Your task to perform on an android device: Open the stopwatch Image 0: 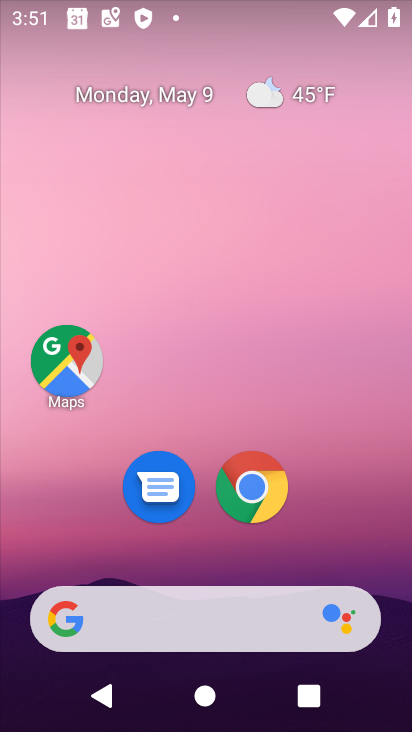
Step 0: drag from (206, 585) to (202, 206)
Your task to perform on an android device: Open the stopwatch Image 1: 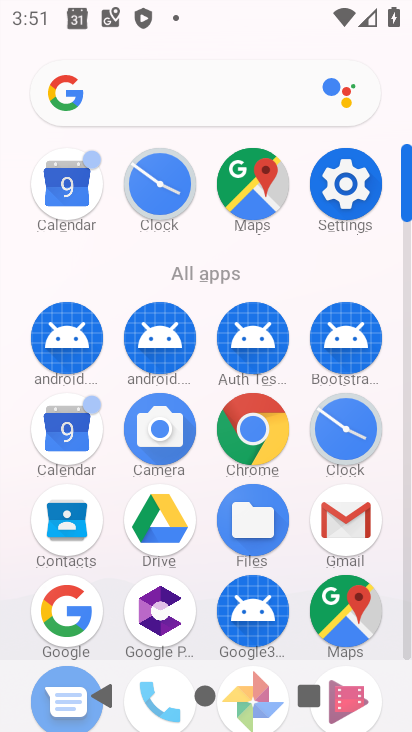
Step 1: click (171, 197)
Your task to perform on an android device: Open the stopwatch Image 2: 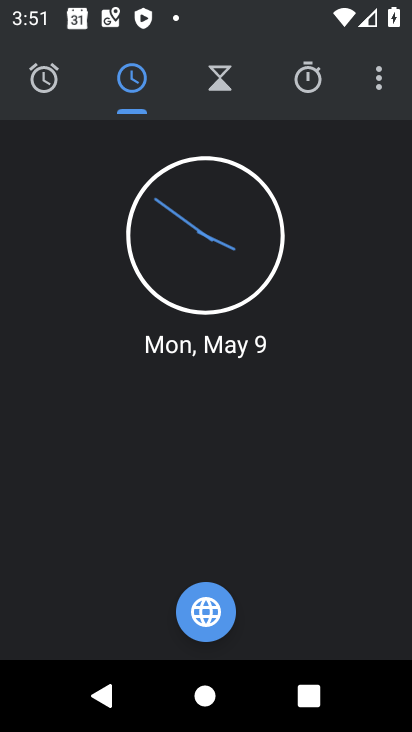
Step 2: click (304, 92)
Your task to perform on an android device: Open the stopwatch Image 3: 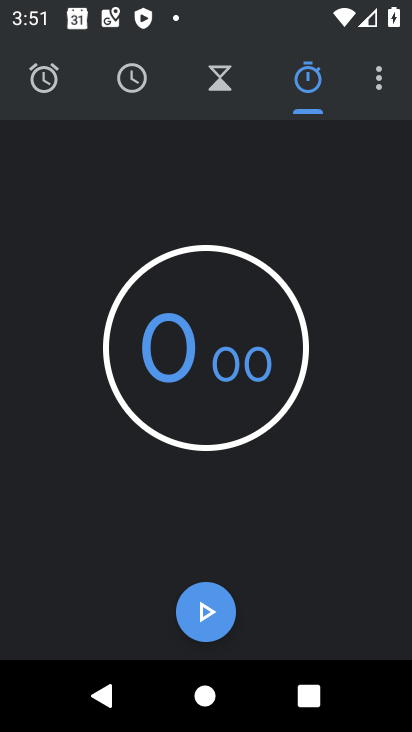
Step 3: task complete